Your task to perform on an android device: toggle translation in the chrome app Image 0: 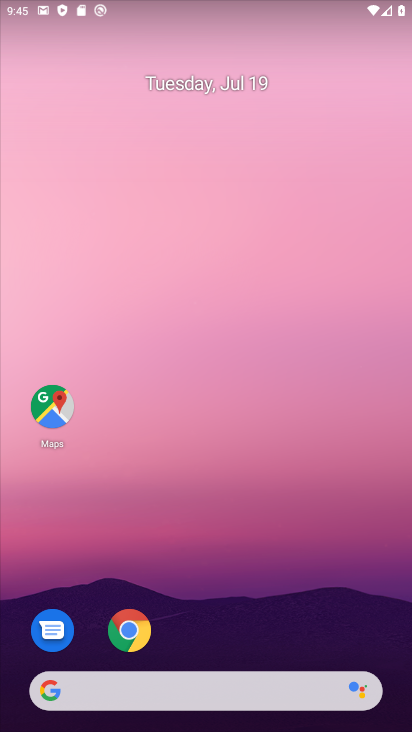
Step 0: drag from (337, 648) to (283, 196)
Your task to perform on an android device: toggle translation in the chrome app Image 1: 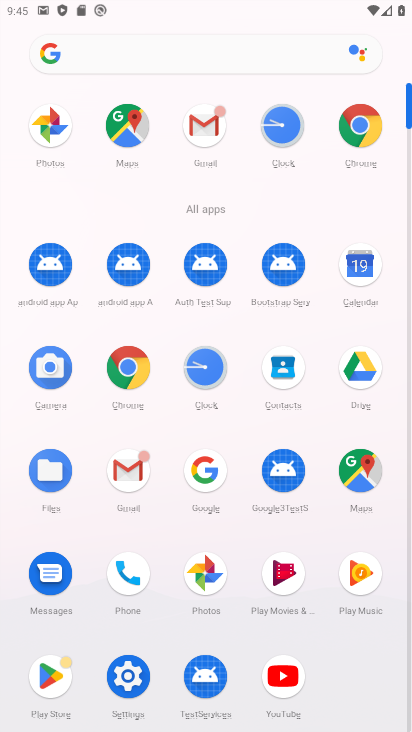
Step 1: click (360, 123)
Your task to perform on an android device: toggle translation in the chrome app Image 2: 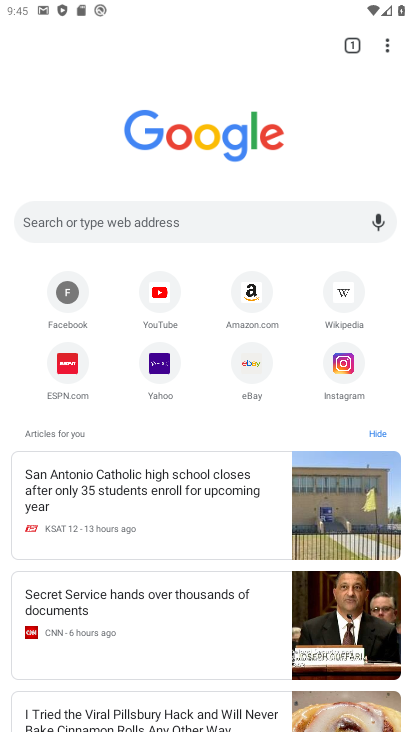
Step 2: click (389, 49)
Your task to perform on an android device: toggle translation in the chrome app Image 3: 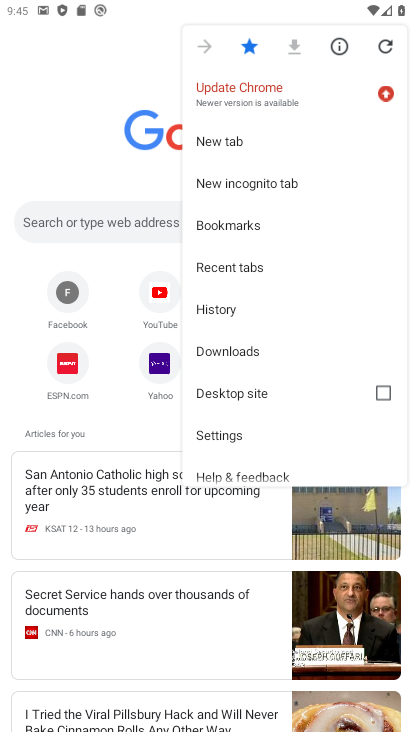
Step 3: click (226, 433)
Your task to perform on an android device: toggle translation in the chrome app Image 4: 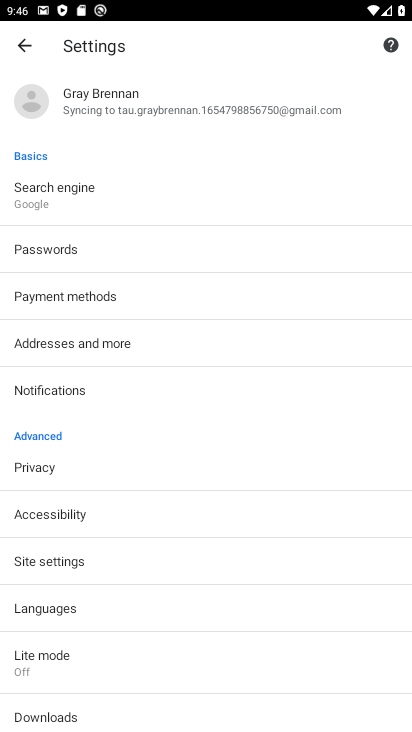
Step 4: click (129, 616)
Your task to perform on an android device: toggle translation in the chrome app Image 5: 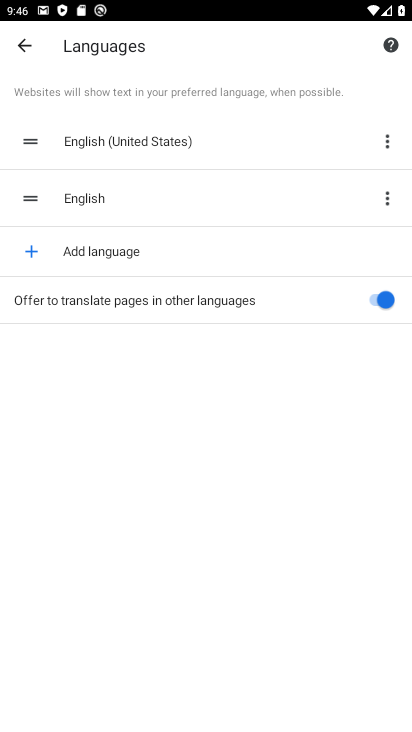
Step 5: click (380, 304)
Your task to perform on an android device: toggle translation in the chrome app Image 6: 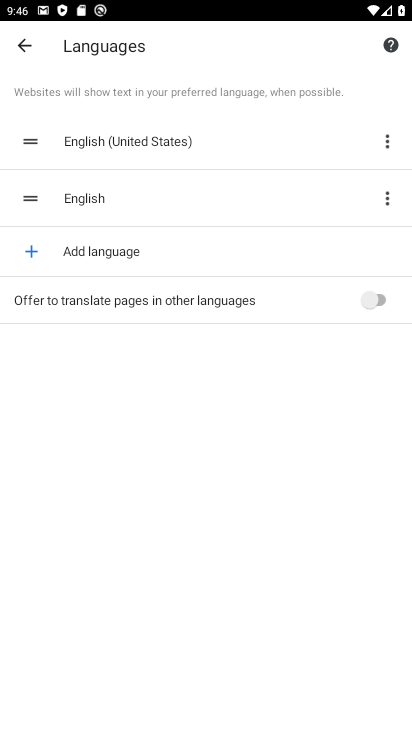
Step 6: task complete